Your task to perform on an android device: turn off location history Image 0: 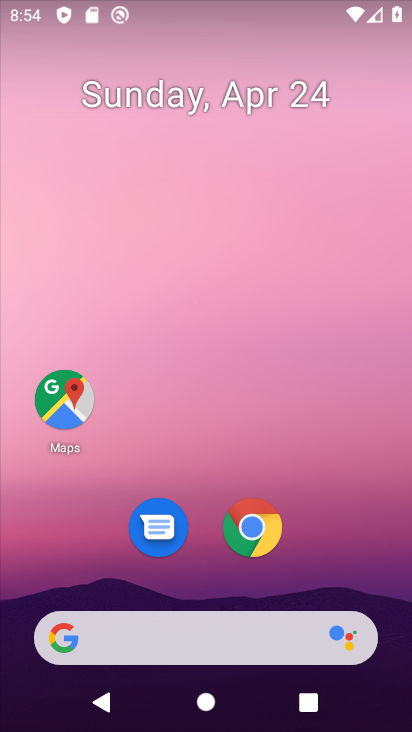
Step 0: drag from (384, 595) to (257, 96)
Your task to perform on an android device: turn off location history Image 1: 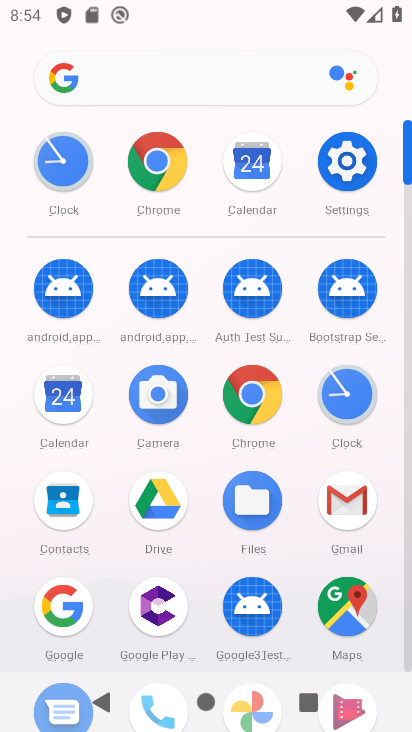
Step 1: click (352, 164)
Your task to perform on an android device: turn off location history Image 2: 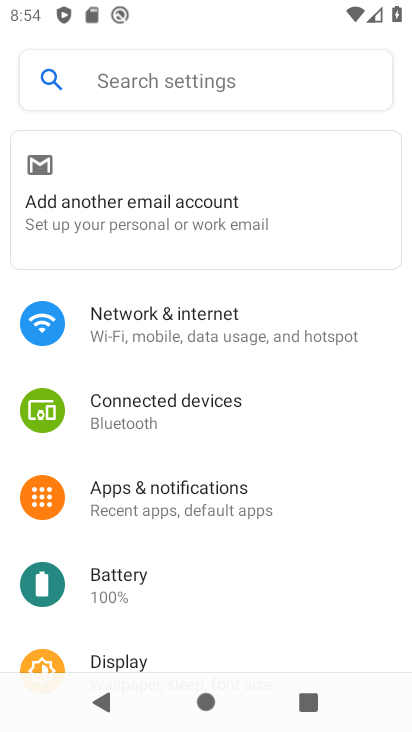
Step 2: drag from (194, 627) to (215, 319)
Your task to perform on an android device: turn off location history Image 3: 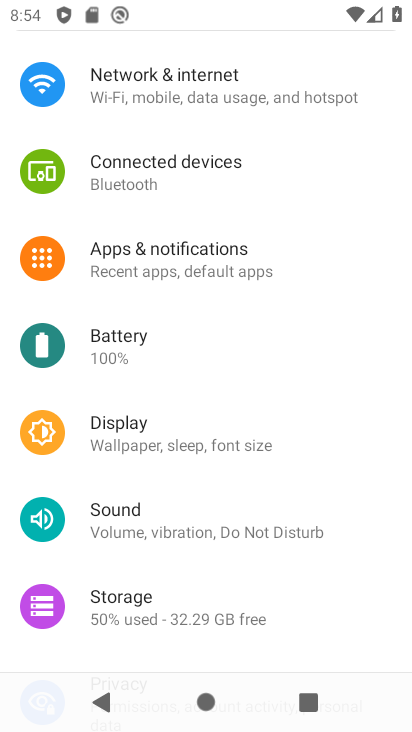
Step 3: drag from (114, 585) to (203, 338)
Your task to perform on an android device: turn off location history Image 4: 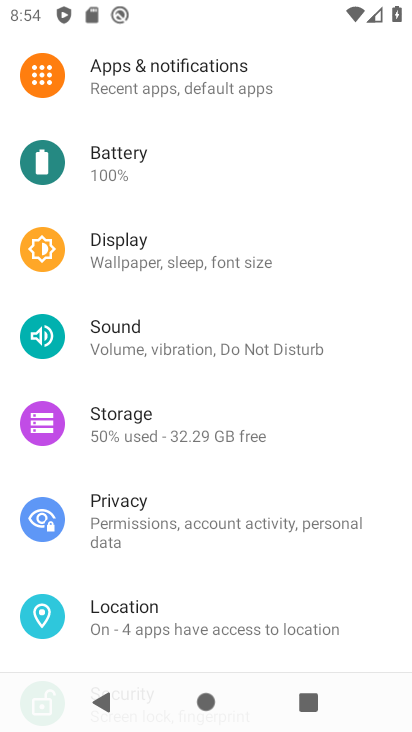
Step 4: click (95, 616)
Your task to perform on an android device: turn off location history Image 5: 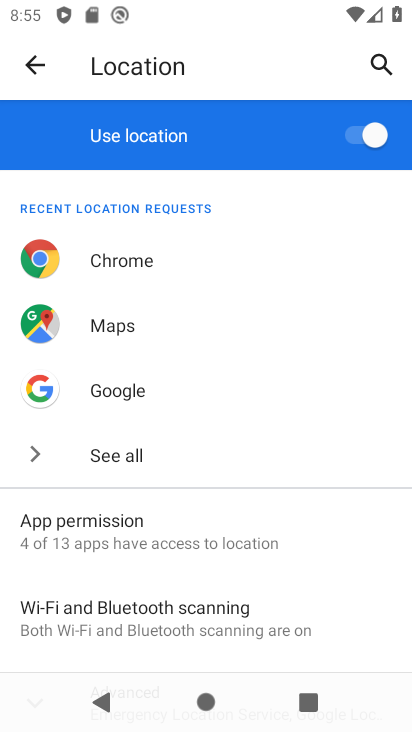
Step 5: drag from (88, 626) to (191, 270)
Your task to perform on an android device: turn off location history Image 6: 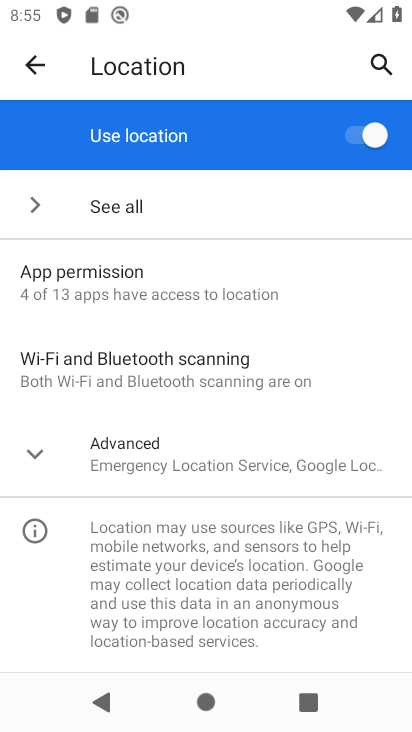
Step 6: click (21, 446)
Your task to perform on an android device: turn off location history Image 7: 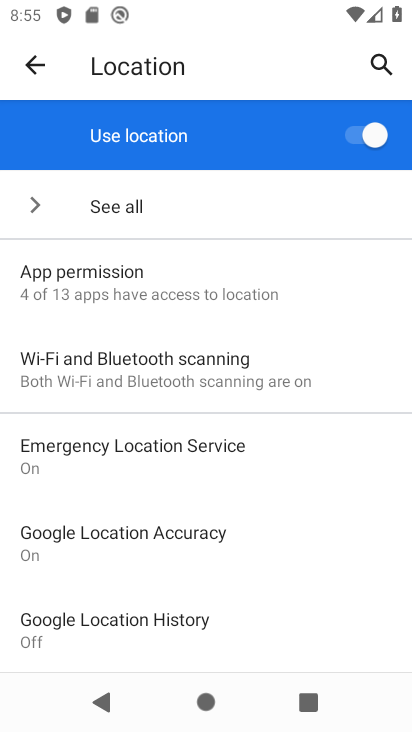
Step 7: click (163, 629)
Your task to perform on an android device: turn off location history Image 8: 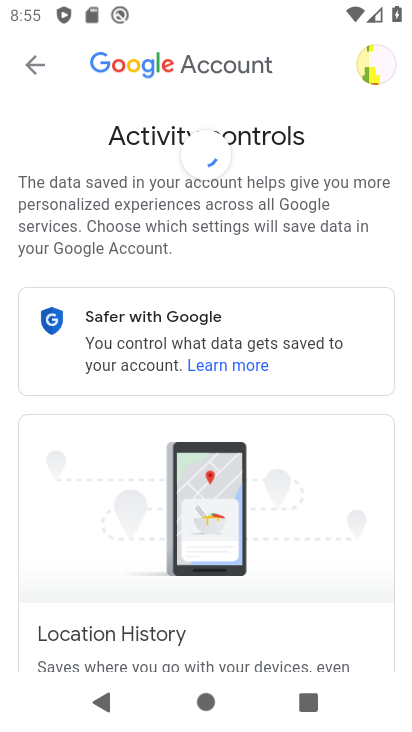
Step 8: task complete